Your task to perform on an android device: Open the web browser Image 0: 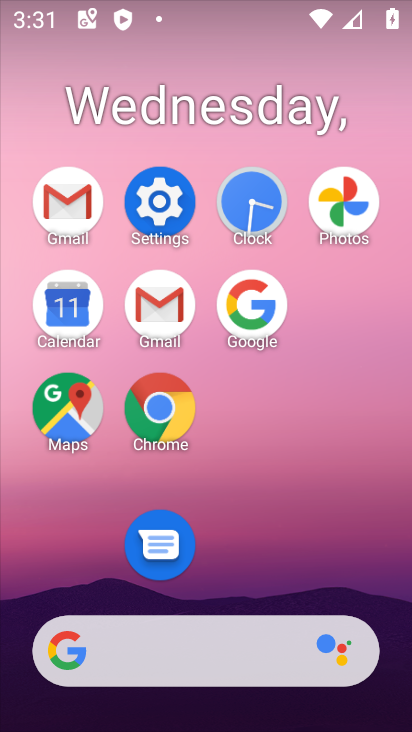
Step 0: click (174, 406)
Your task to perform on an android device: Open the web browser Image 1: 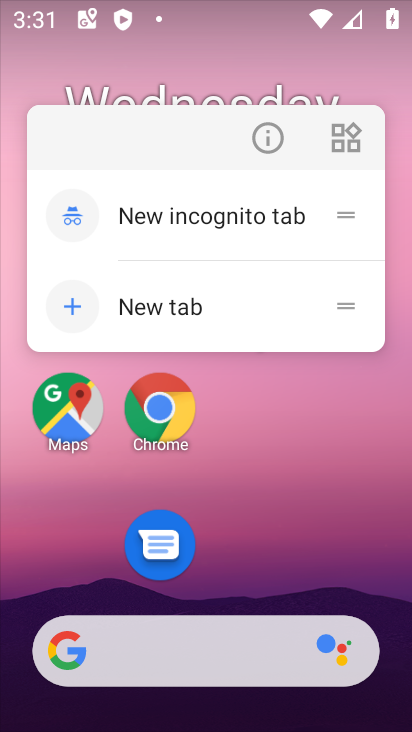
Step 1: click (185, 397)
Your task to perform on an android device: Open the web browser Image 2: 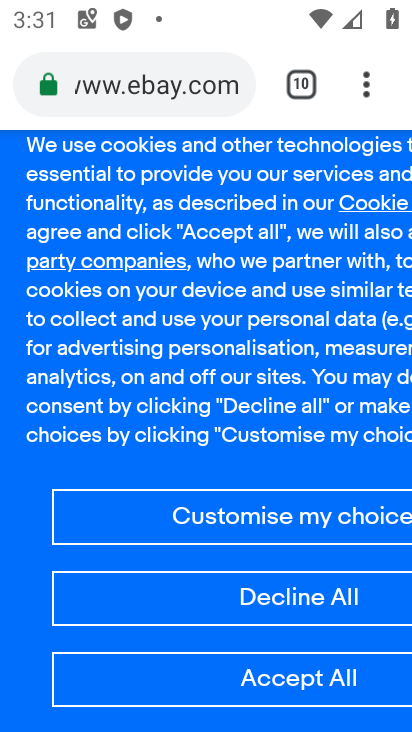
Step 2: task complete